Your task to perform on an android device: Go to Yahoo.com Image 0: 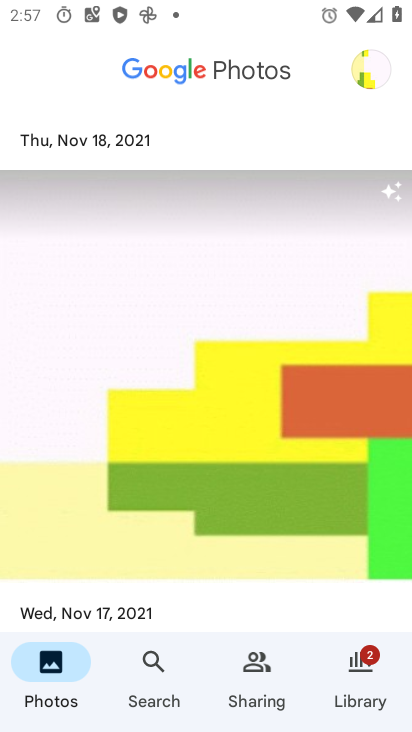
Step 0: press home button
Your task to perform on an android device: Go to Yahoo.com Image 1: 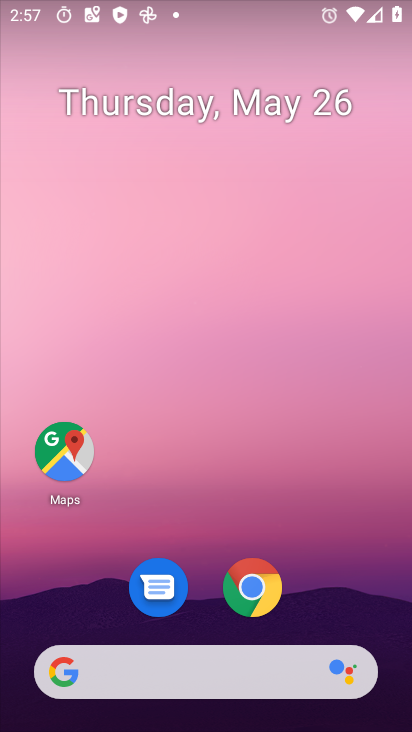
Step 1: drag from (363, 610) to (372, 216)
Your task to perform on an android device: Go to Yahoo.com Image 2: 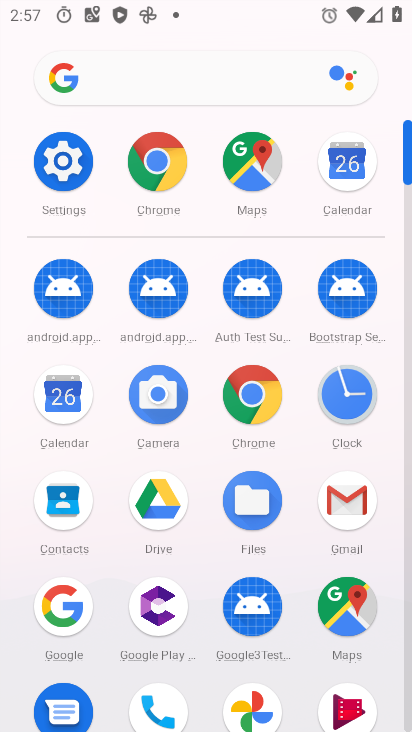
Step 2: click (277, 395)
Your task to perform on an android device: Go to Yahoo.com Image 3: 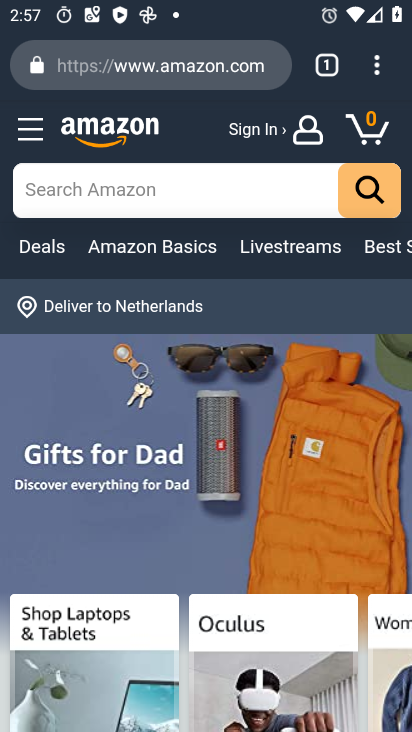
Step 3: click (228, 70)
Your task to perform on an android device: Go to Yahoo.com Image 4: 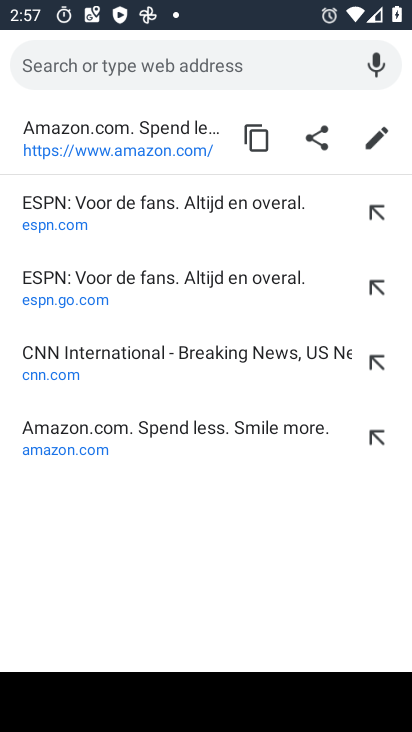
Step 4: type "yahoo.com"
Your task to perform on an android device: Go to Yahoo.com Image 5: 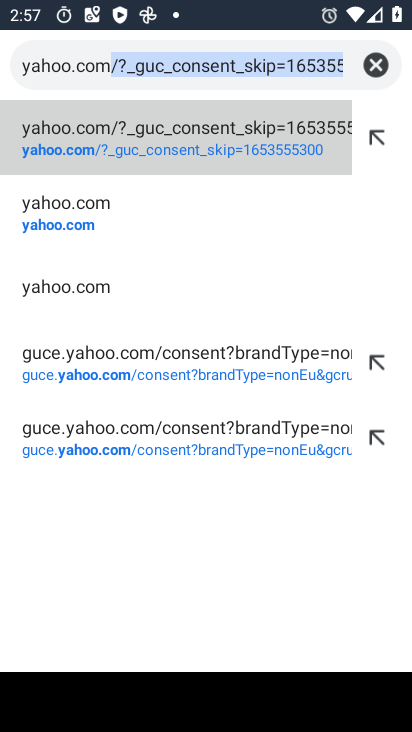
Step 5: click (82, 218)
Your task to perform on an android device: Go to Yahoo.com Image 6: 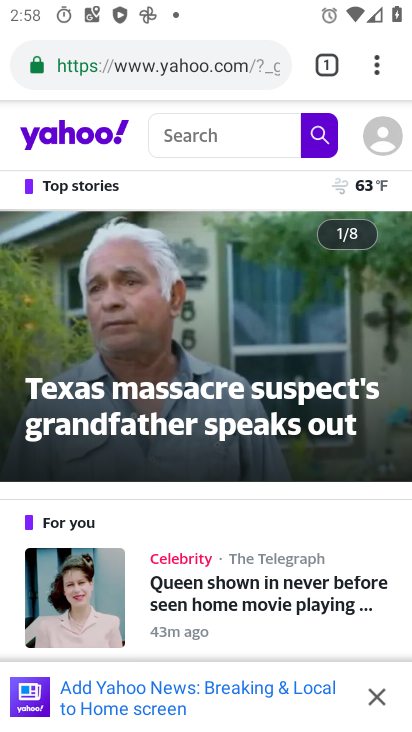
Step 6: task complete